Your task to perform on an android device: Open eBay Image 0: 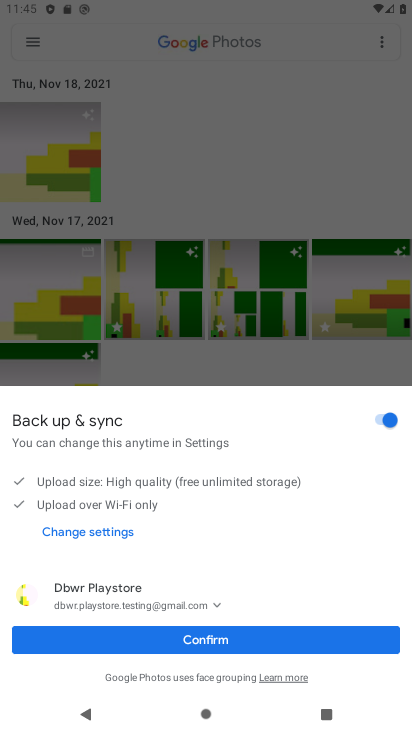
Step 0: press home button
Your task to perform on an android device: Open eBay Image 1: 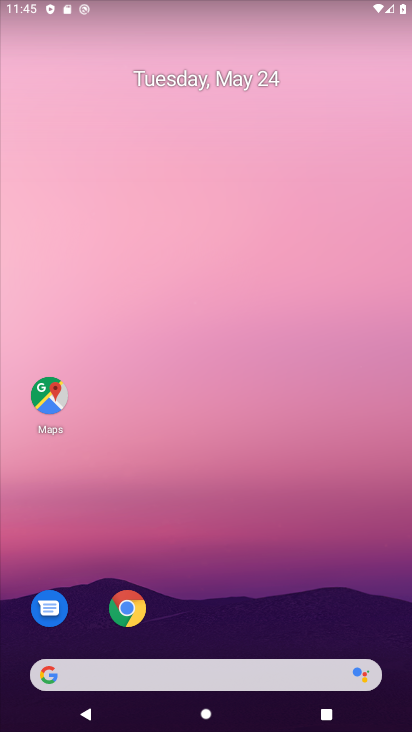
Step 1: click (113, 608)
Your task to perform on an android device: Open eBay Image 2: 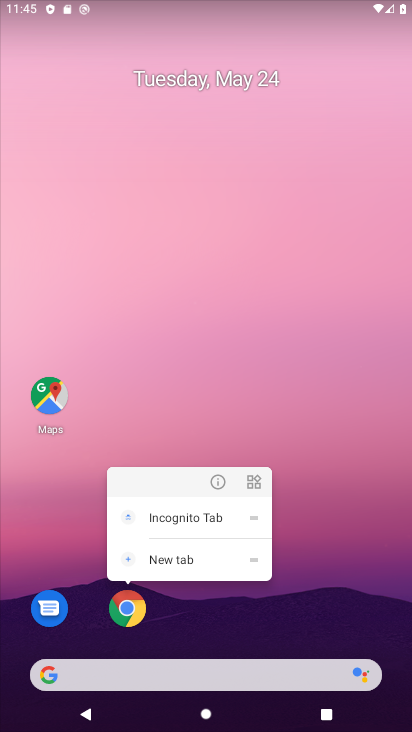
Step 2: click (125, 612)
Your task to perform on an android device: Open eBay Image 3: 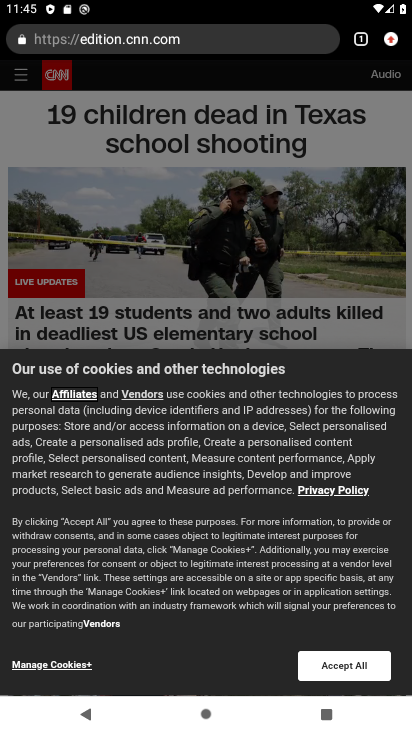
Step 3: click (374, 32)
Your task to perform on an android device: Open eBay Image 4: 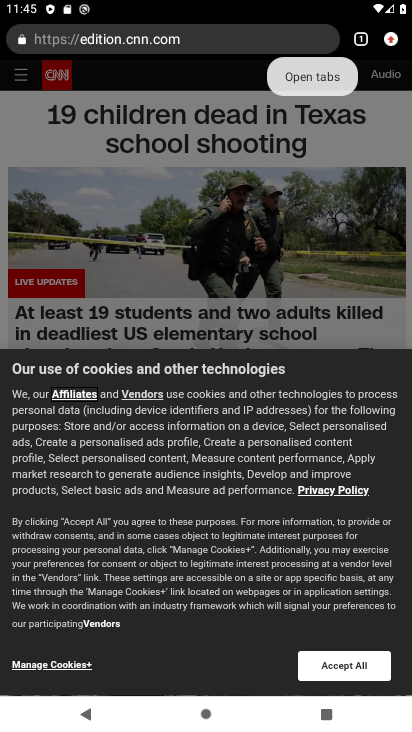
Step 4: drag from (396, 46) to (329, 123)
Your task to perform on an android device: Open eBay Image 5: 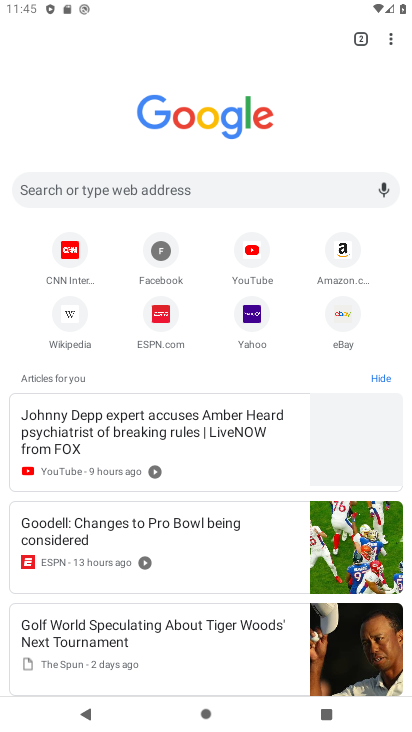
Step 5: click (341, 315)
Your task to perform on an android device: Open eBay Image 6: 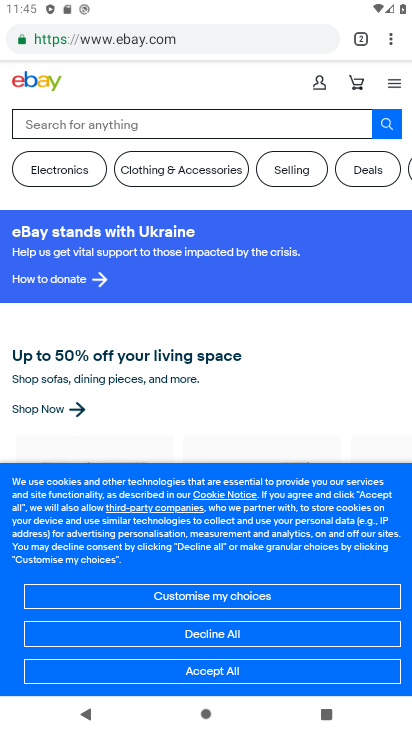
Step 6: click (257, 665)
Your task to perform on an android device: Open eBay Image 7: 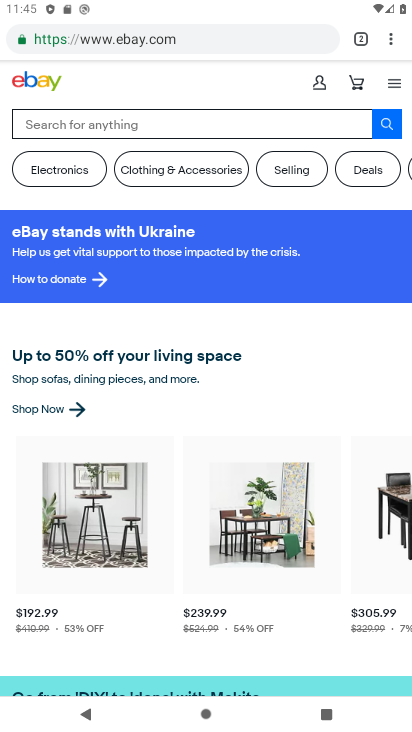
Step 7: task complete